Your task to perform on an android device: turn off data saver in the chrome app Image 0: 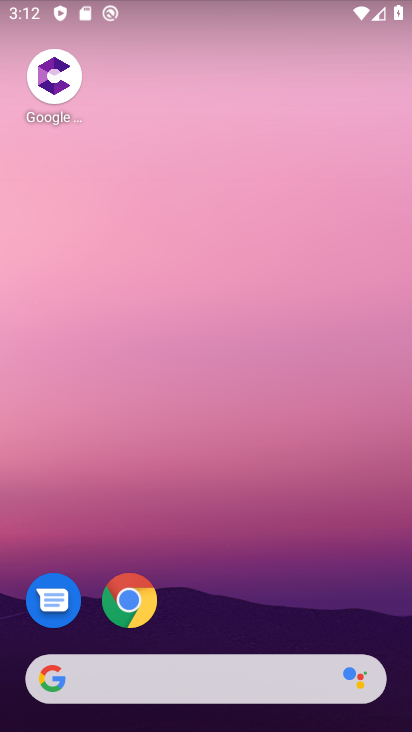
Step 0: click (125, 597)
Your task to perform on an android device: turn off data saver in the chrome app Image 1: 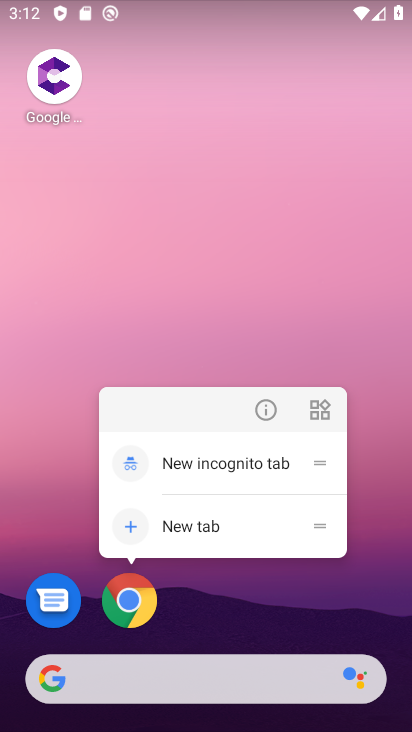
Step 1: click (126, 581)
Your task to perform on an android device: turn off data saver in the chrome app Image 2: 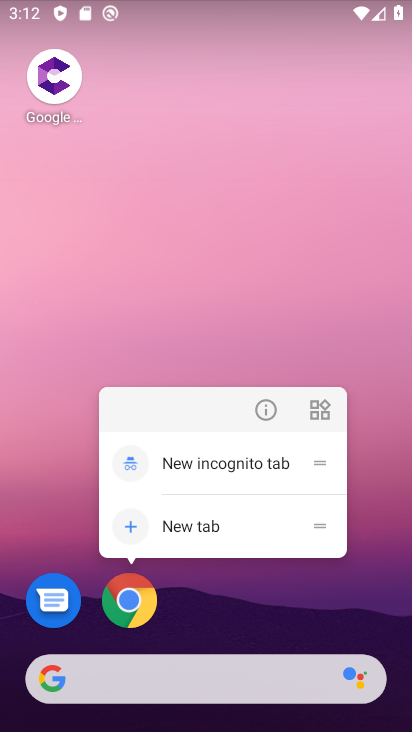
Step 2: click (126, 581)
Your task to perform on an android device: turn off data saver in the chrome app Image 3: 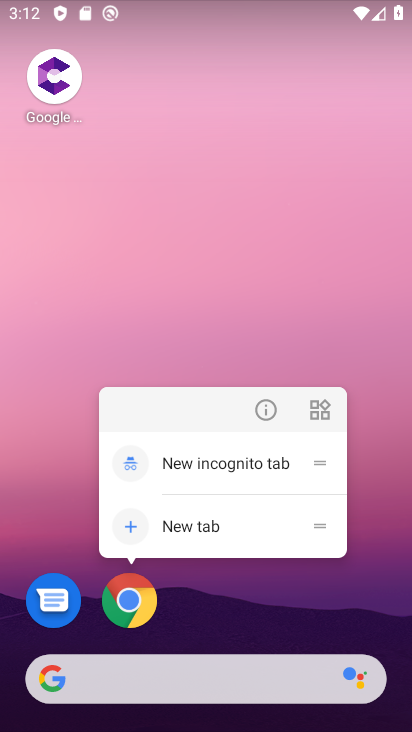
Step 3: click (126, 581)
Your task to perform on an android device: turn off data saver in the chrome app Image 4: 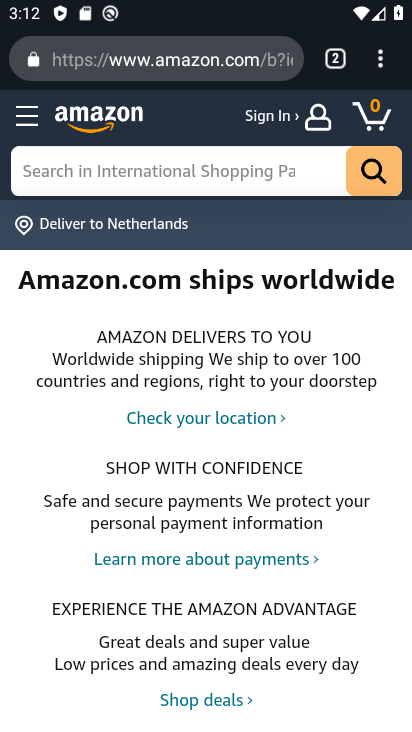
Step 4: drag from (377, 464) to (359, 249)
Your task to perform on an android device: turn off data saver in the chrome app Image 5: 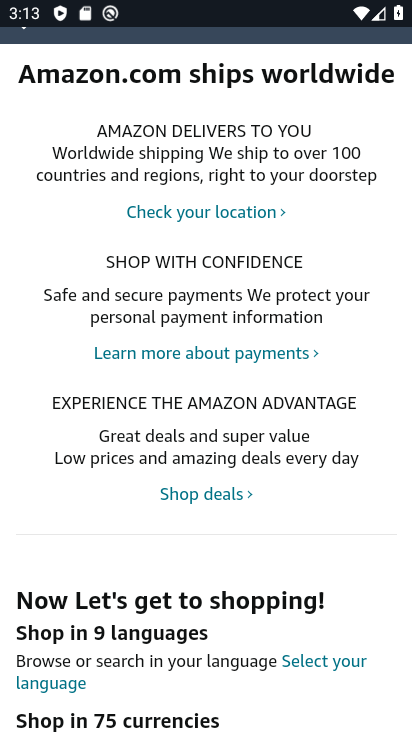
Step 5: drag from (318, 223) to (325, 624)
Your task to perform on an android device: turn off data saver in the chrome app Image 6: 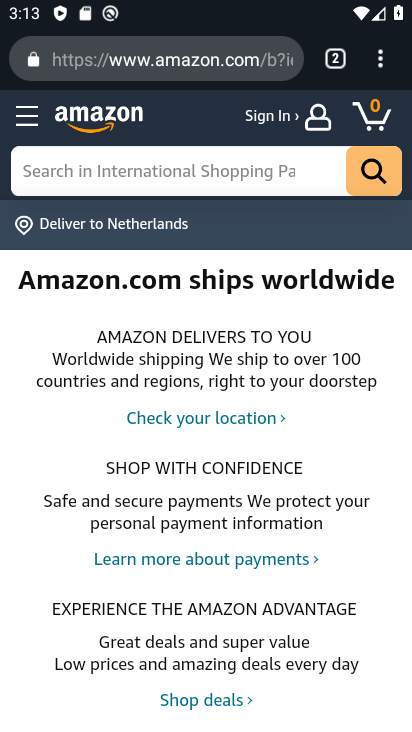
Step 6: click (379, 54)
Your task to perform on an android device: turn off data saver in the chrome app Image 7: 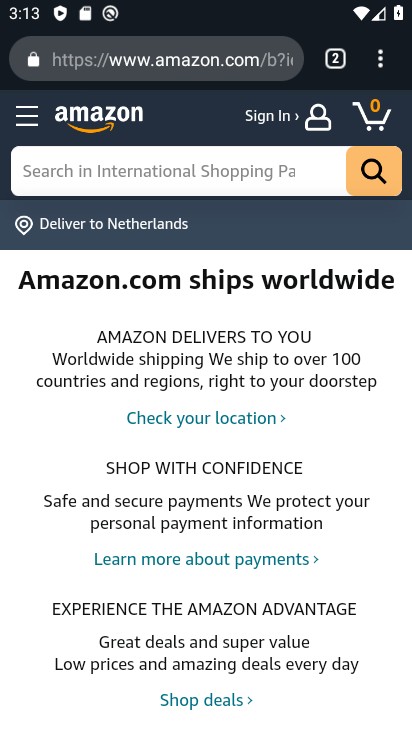
Step 7: click (379, 55)
Your task to perform on an android device: turn off data saver in the chrome app Image 8: 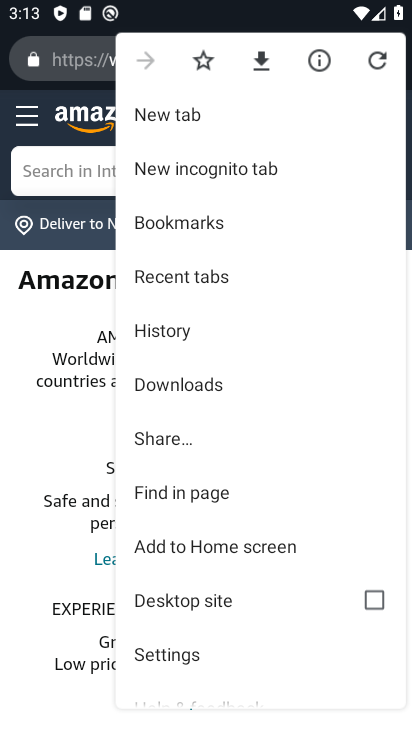
Step 8: click (171, 647)
Your task to perform on an android device: turn off data saver in the chrome app Image 9: 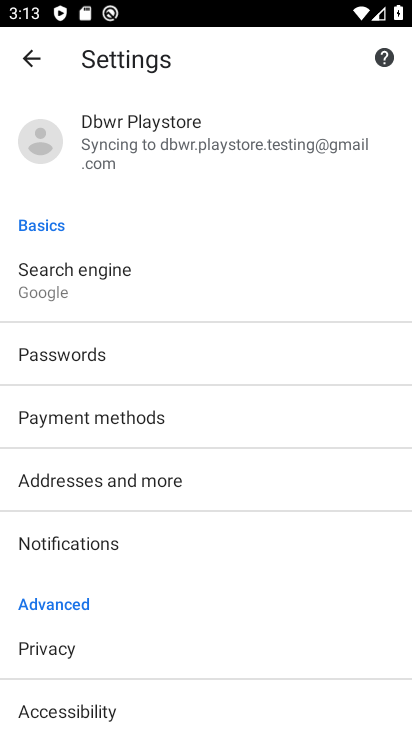
Step 9: drag from (272, 633) to (272, 353)
Your task to perform on an android device: turn off data saver in the chrome app Image 10: 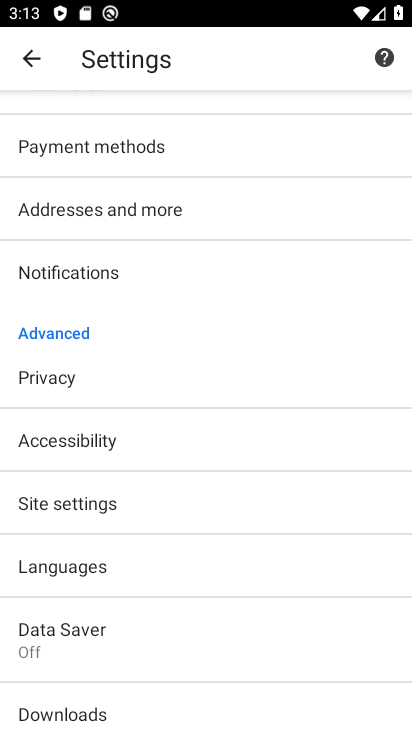
Step 10: click (63, 627)
Your task to perform on an android device: turn off data saver in the chrome app Image 11: 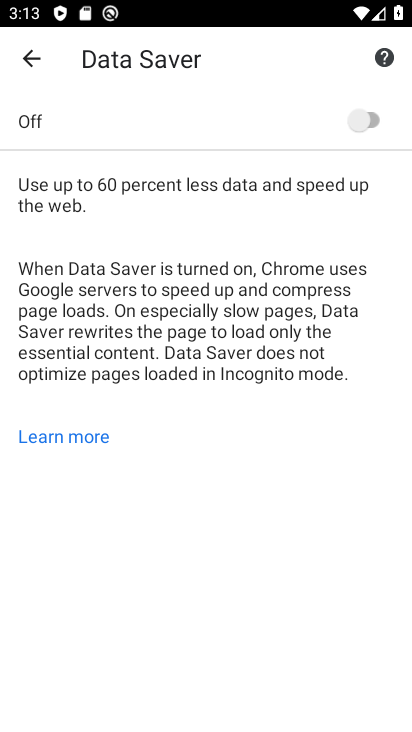
Step 11: task complete